Your task to perform on an android device: Add "asus zenbook" to the cart on target.com, then select checkout. Image 0: 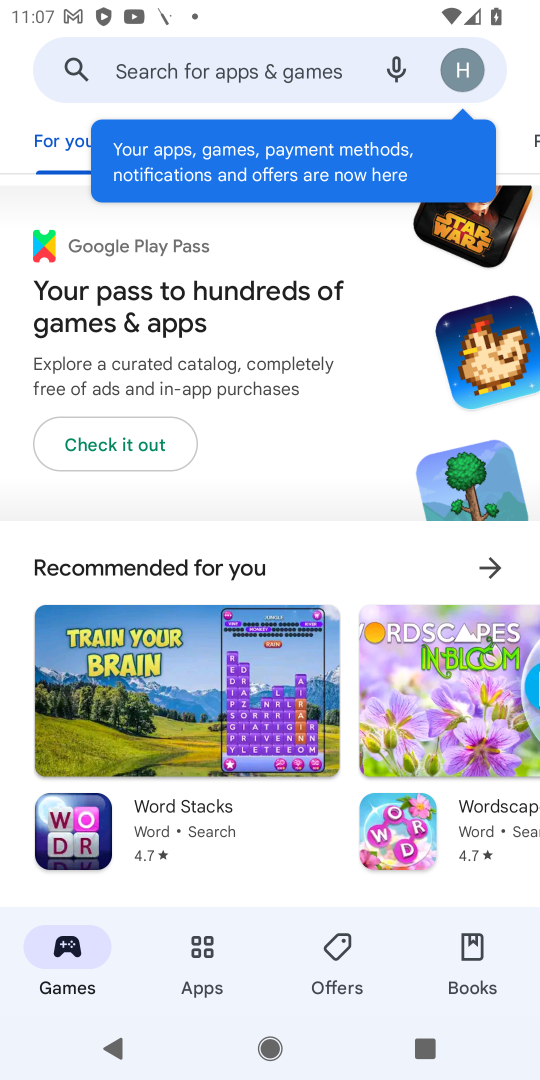
Step 0: press home button
Your task to perform on an android device: Add "asus zenbook" to the cart on target.com, then select checkout. Image 1: 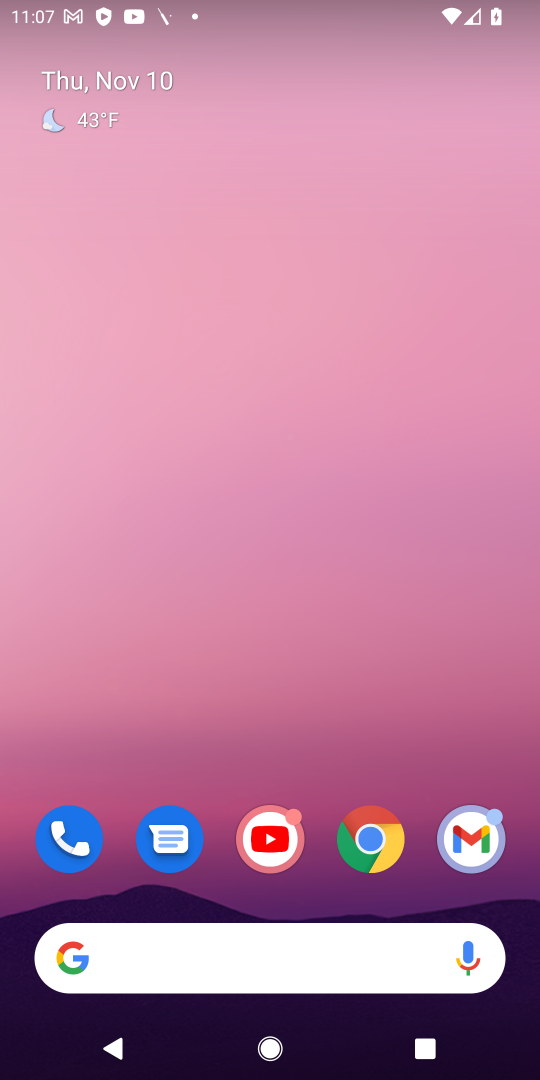
Step 1: click (374, 848)
Your task to perform on an android device: Add "asus zenbook" to the cart on target.com, then select checkout. Image 2: 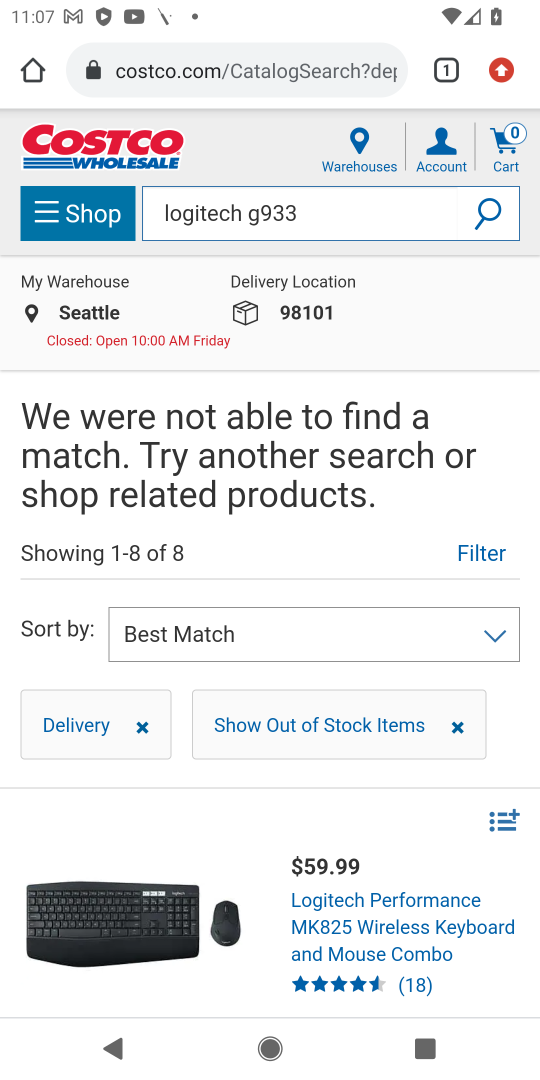
Step 2: click (296, 71)
Your task to perform on an android device: Add "asus zenbook" to the cart on target.com, then select checkout. Image 3: 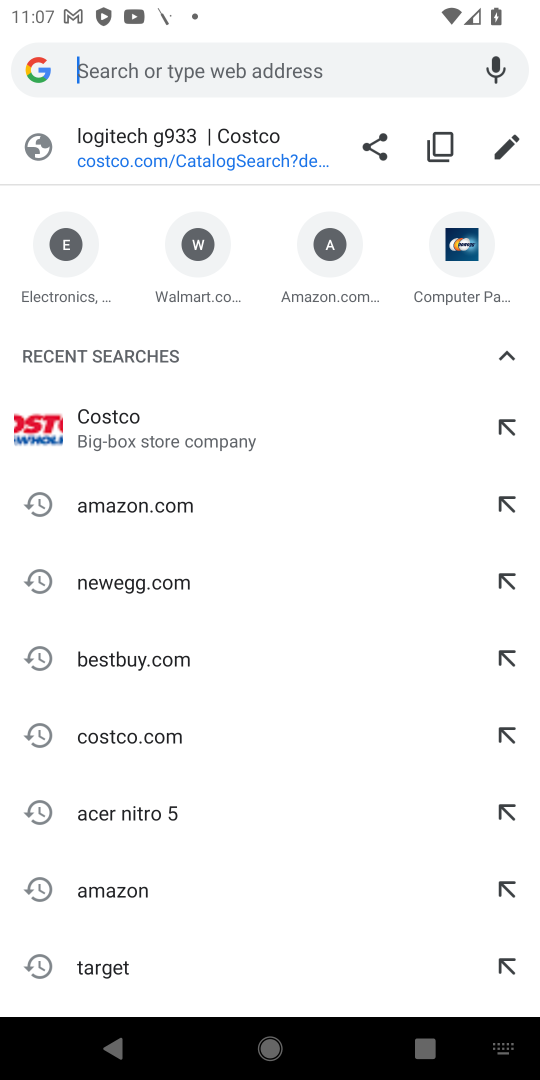
Step 3: click (100, 962)
Your task to perform on an android device: Add "asus zenbook" to the cart on target.com, then select checkout. Image 4: 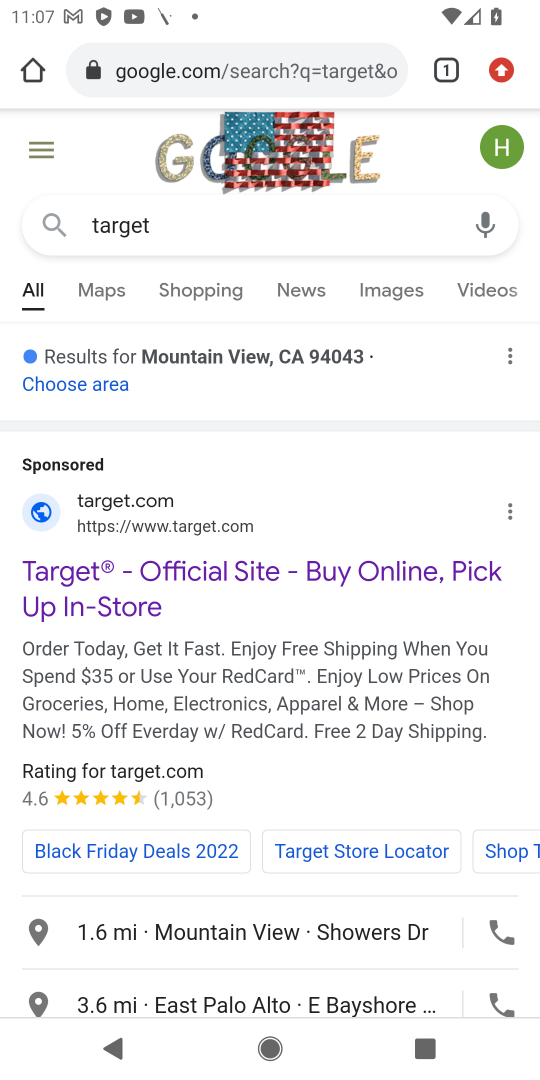
Step 4: click (216, 521)
Your task to perform on an android device: Add "asus zenbook" to the cart on target.com, then select checkout. Image 5: 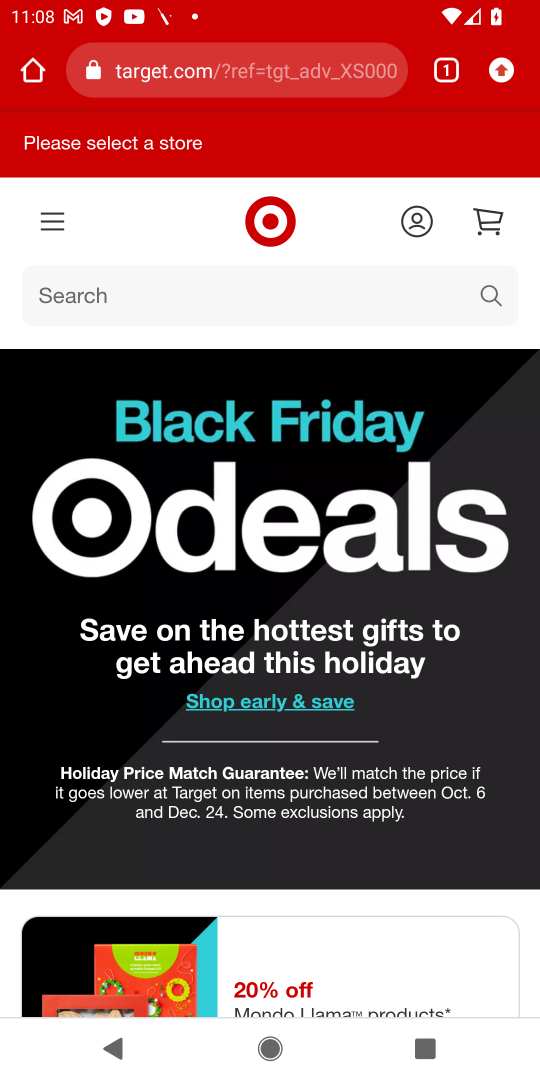
Step 5: click (479, 293)
Your task to perform on an android device: Add "asus zenbook" to the cart on target.com, then select checkout. Image 6: 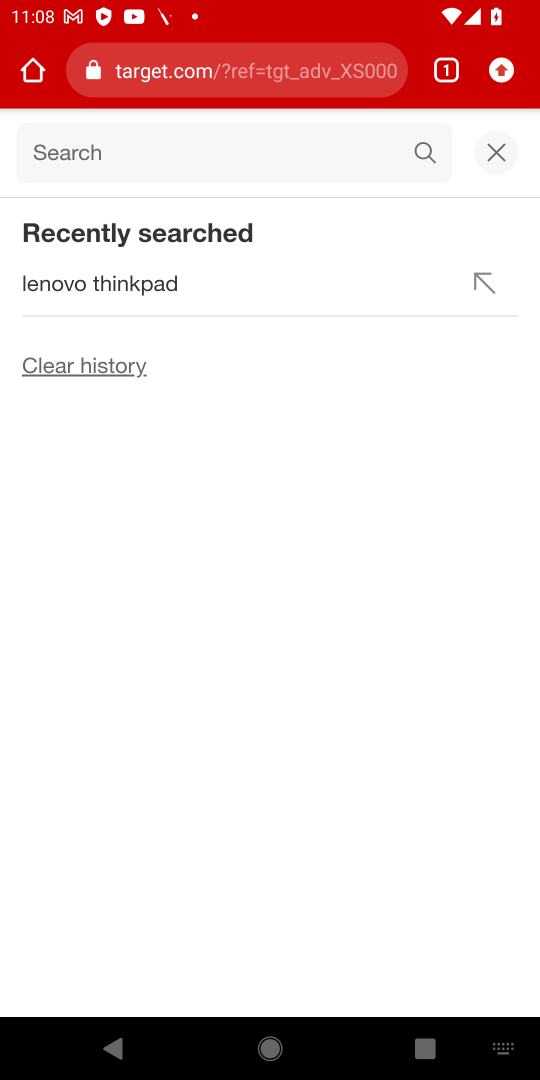
Step 6: type "asus zenbook"
Your task to perform on an android device: Add "asus zenbook" to the cart on target.com, then select checkout. Image 7: 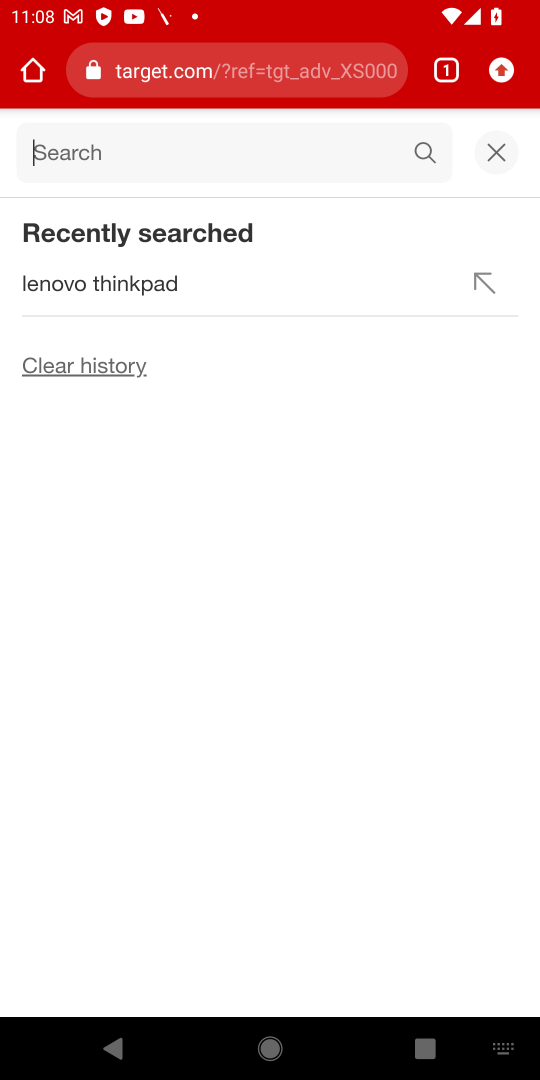
Step 7: press enter
Your task to perform on an android device: Add "asus zenbook" to the cart on target.com, then select checkout. Image 8: 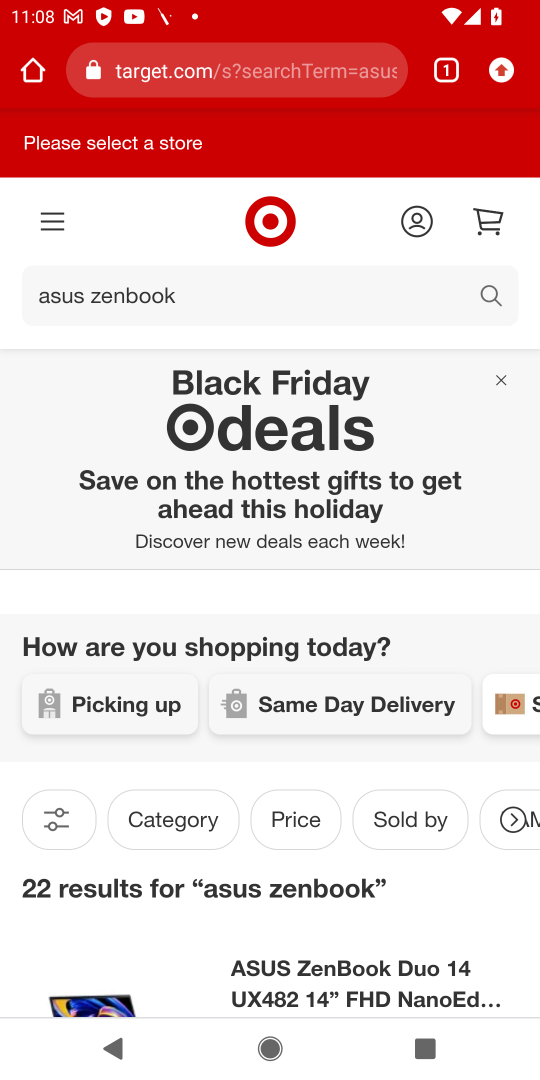
Step 8: drag from (430, 931) to (429, 462)
Your task to perform on an android device: Add "asus zenbook" to the cart on target.com, then select checkout. Image 9: 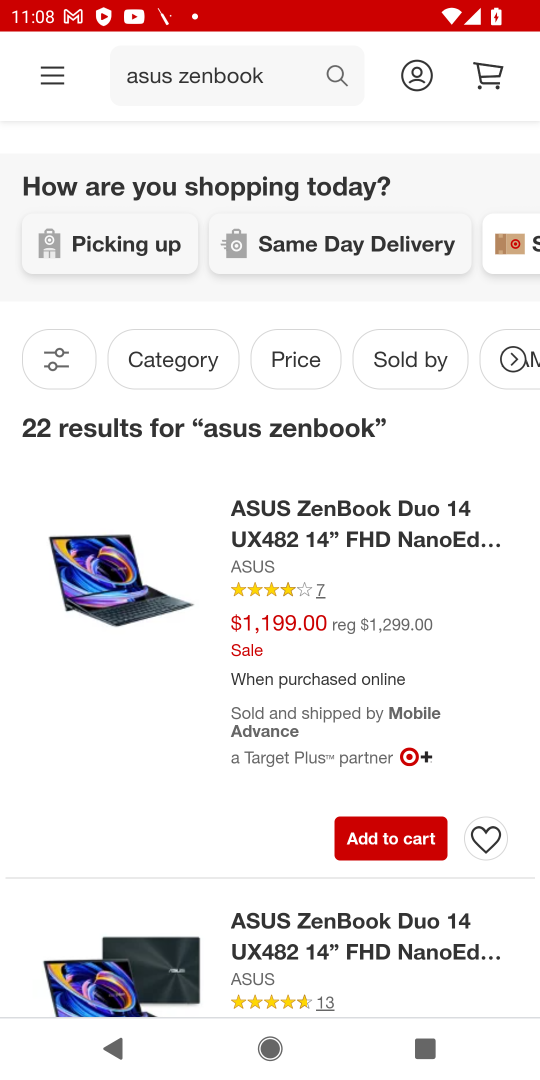
Step 9: click (104, 557)
Your task to perform on an android device: Add "asus zenbook" to the cart on target.com, then select checkout. Image 10: 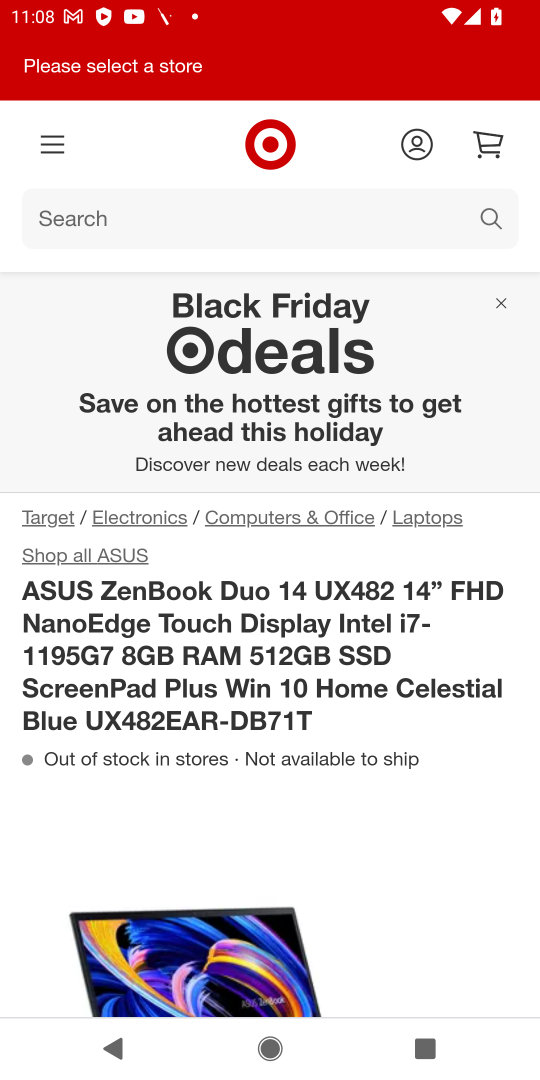
Step 10: press back button
Your task to perform on an android device: Add "asus zenbook" to the cart on target.com, then select checkout. Image 11: 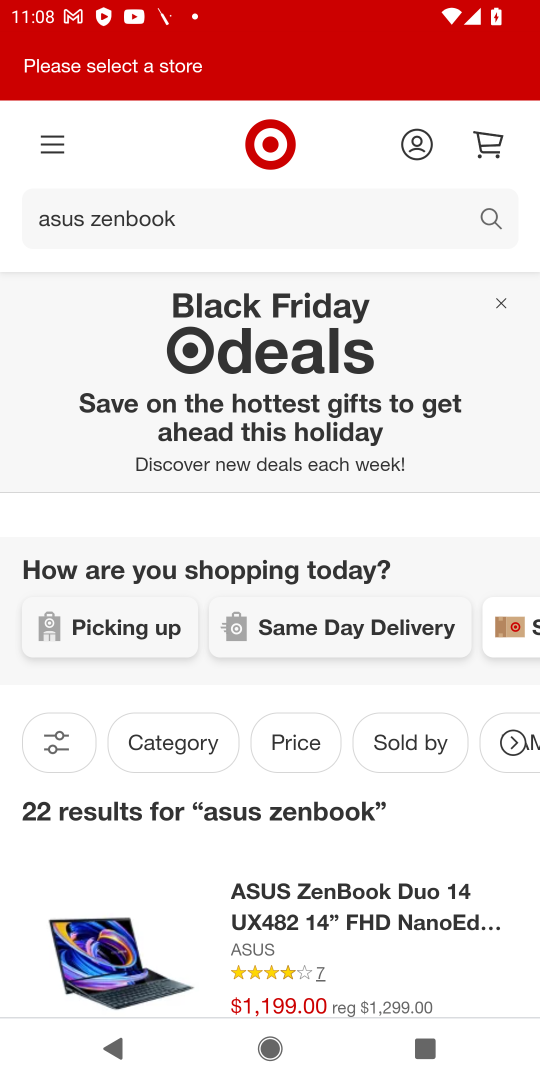
Step 11: drag from (369, 914) to (399, 327)
Your task to perform on an android device: Add "asus zenbook" to the cart on target.com, then select checkout. Image 12: 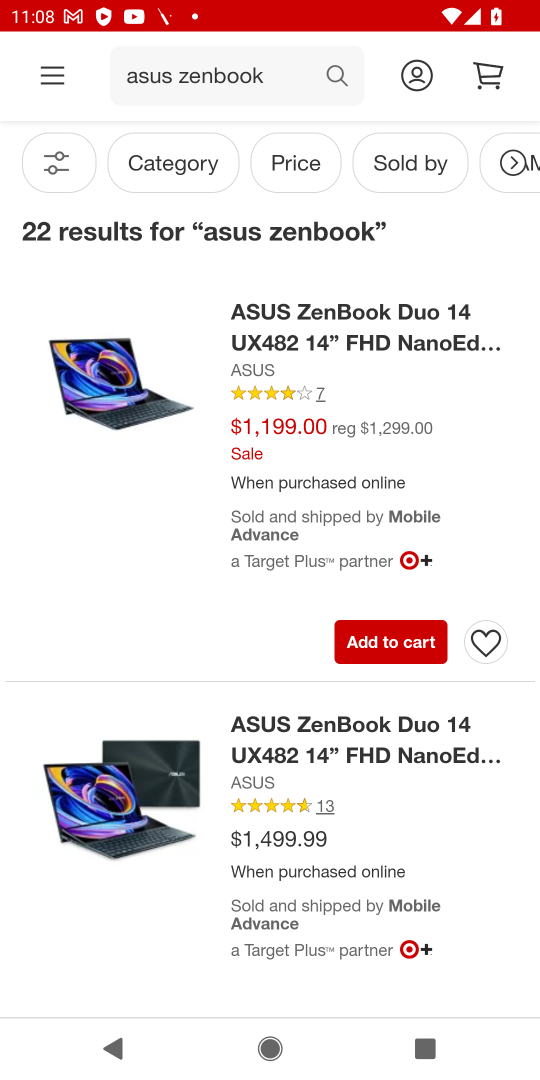
Step 12: drag from (471, 785) to (479, 288)
Your task to perform on an android device: Add "asus zenbook" to the cart on target.com, then select checkout. Image 13: 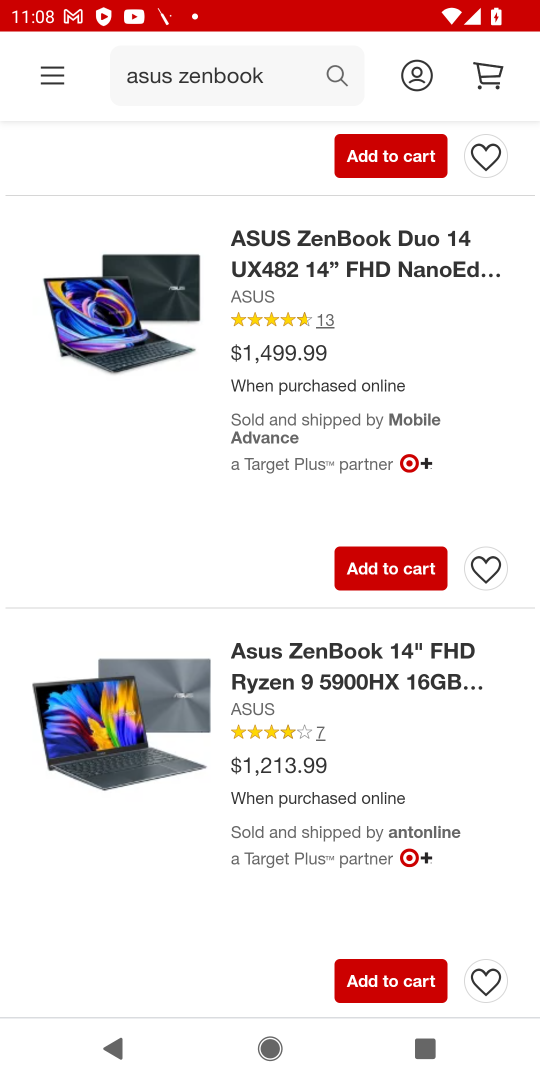
Step 13: drag from (175, 265) to (158, 766)
Your task to perform on an android device: Add "asus zenbook" to the cart on target.com, then select checkout. Image 14: 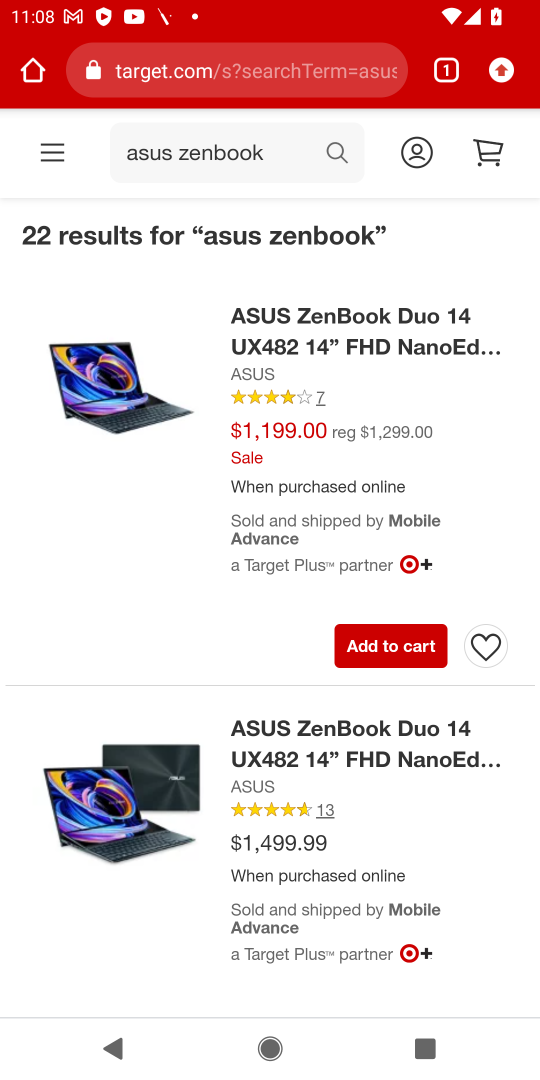
Step 14: click (109, 398)
Your task to perform on an android device: Add "asus zenbook" to the cart on target.com, then select checkout. Image 15: 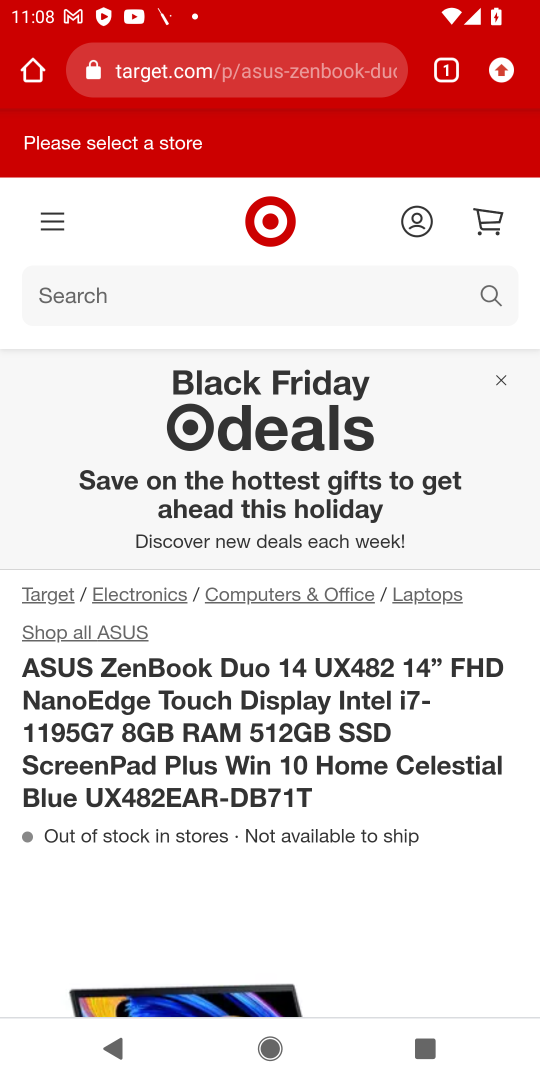
Step 15: drag from (455, 840) to (480, 346)
Your task to perform on an android device: Add "asus zenbook" to the cart on target.com, then select checkout. Image 16: 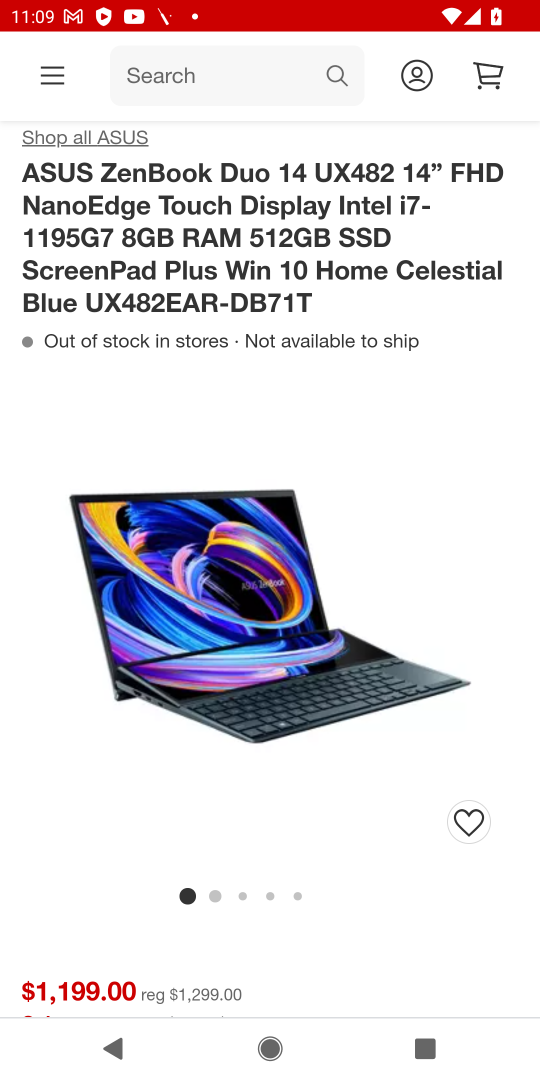
Step 16: drag from (456, 663) to (534, 238)
Your task to perform on an android device: Add "asus zenbook" to the cart on target.com, then select checkout. Image 17: 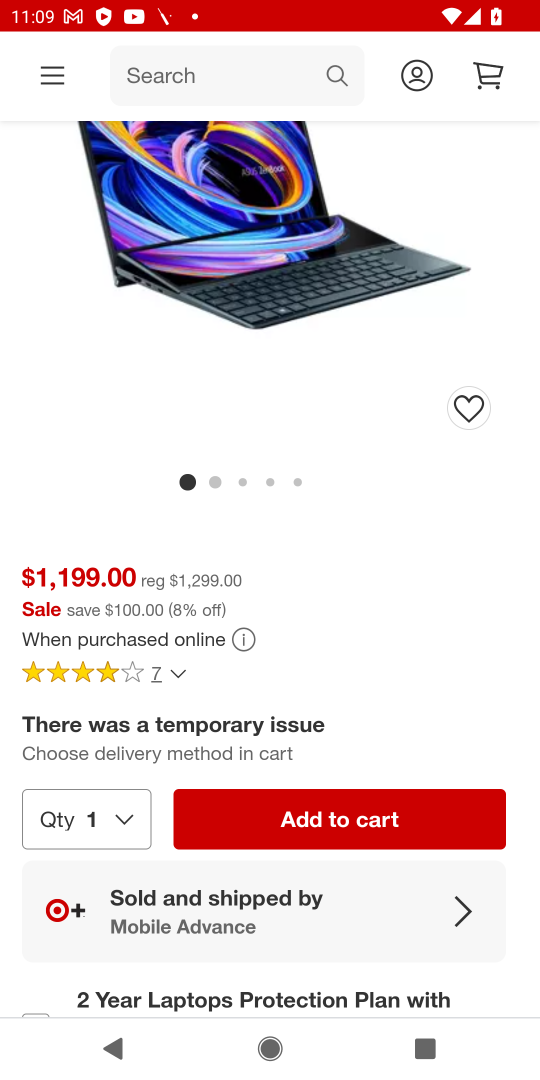
Step 17: click (362, 821)
Your task to perform on an android device: Add "asus zenbook" to the cart on target.com, then select checkout. Image 18: 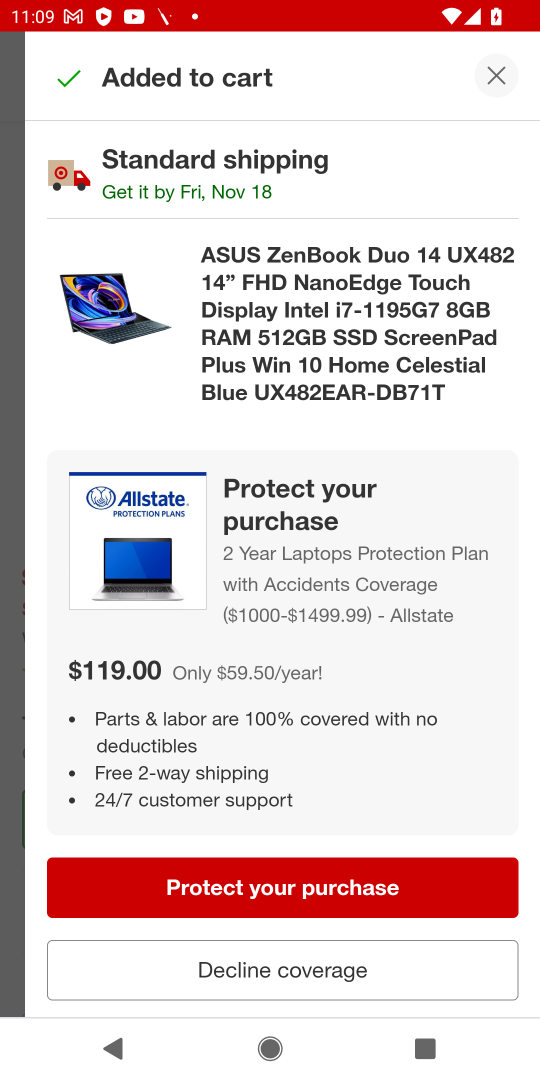
Step 18: click (494, 71)
Your task to perform on an android device: Add "asus zenbook" to the cart on target.com, then select checkout. Image 19: 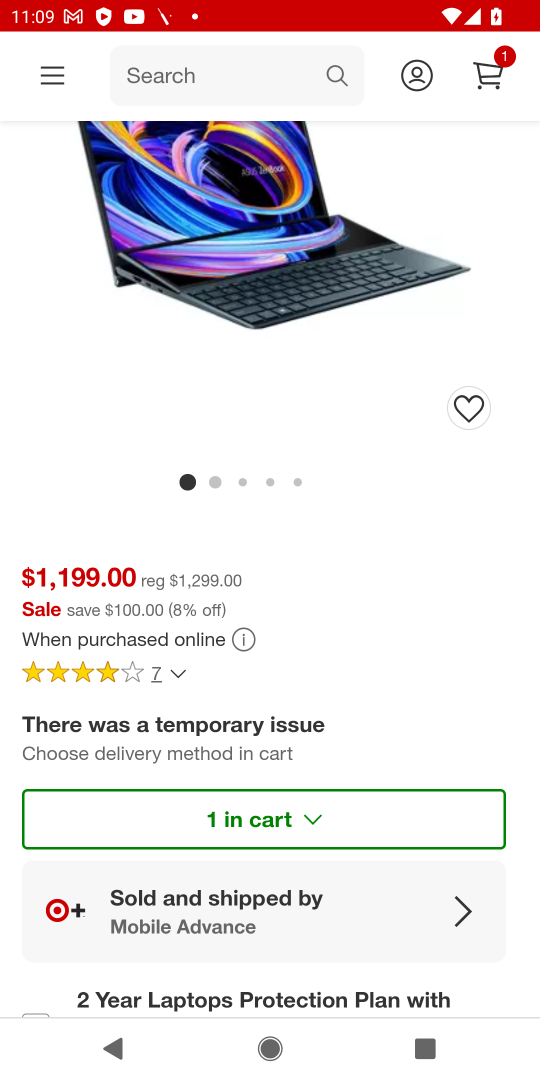
Step 19: click (493, 77)
Your task to perform on an android device: Add "asus zenbook" to the cart on target.com, then select checkout. Image 20: 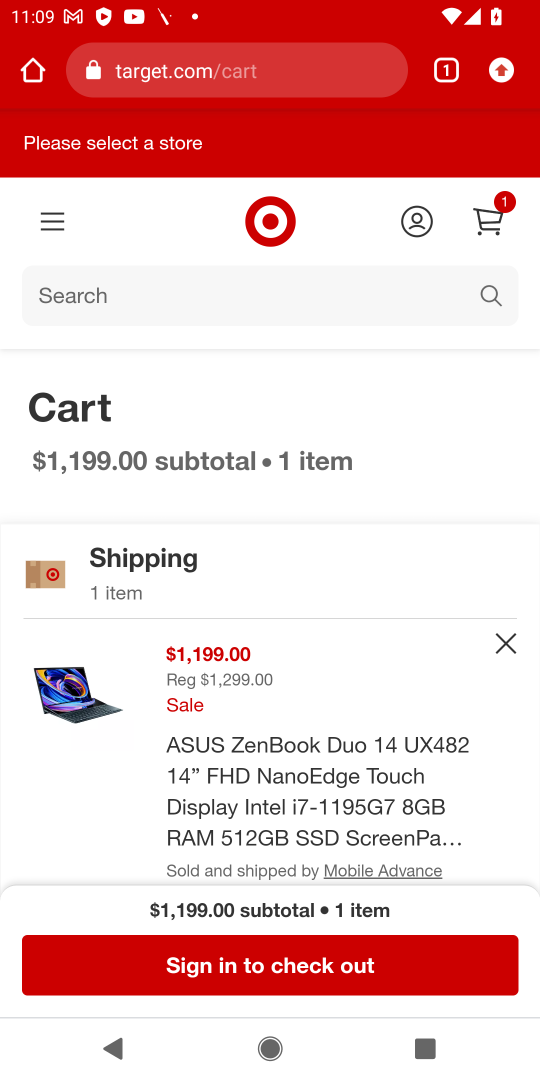
Step 20: click (303, 957)
Your task to perform on an android device: Add "asus zenbook" to the cart on target.com, then select checkout. Image 21: 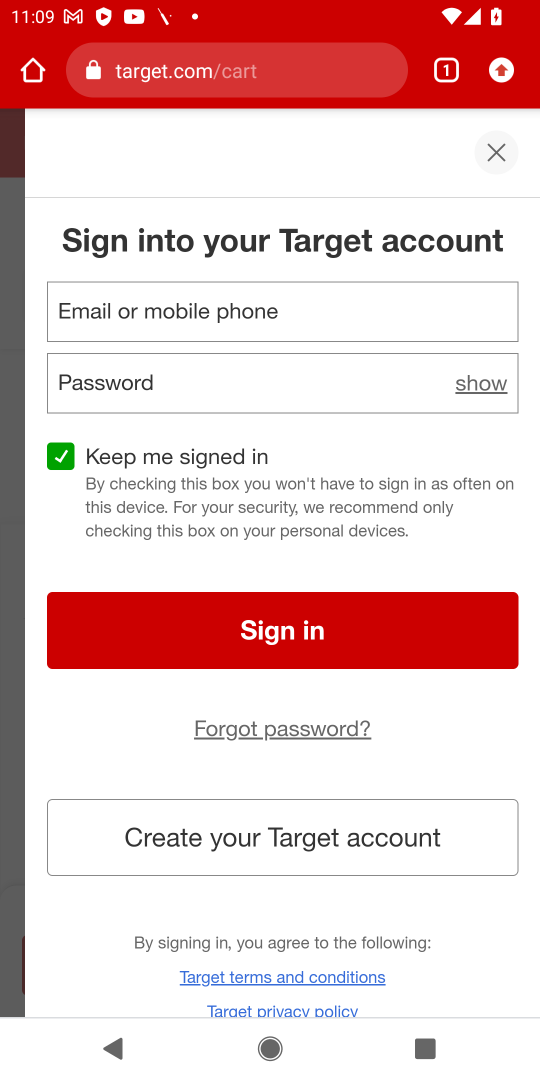
Step 21: task complete